Your task to perform on an android device: What's the weather going to be this weekend? Image 0: 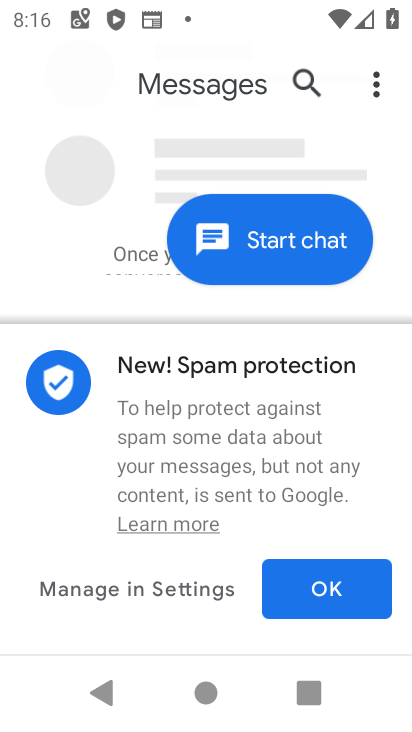
Step 0: press home button
Your task to perform on an android device: What's the weather going to be this weekend? Image 1: 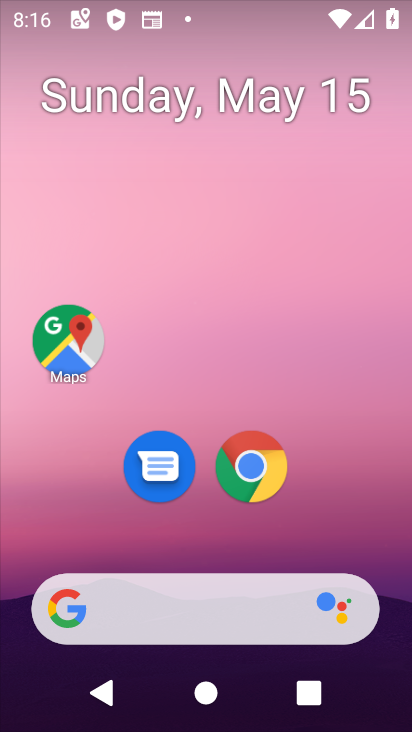
Step 1: click (219, 618)
Your task to perform on an android device: What's the weather going to be this weekend? Image 2: 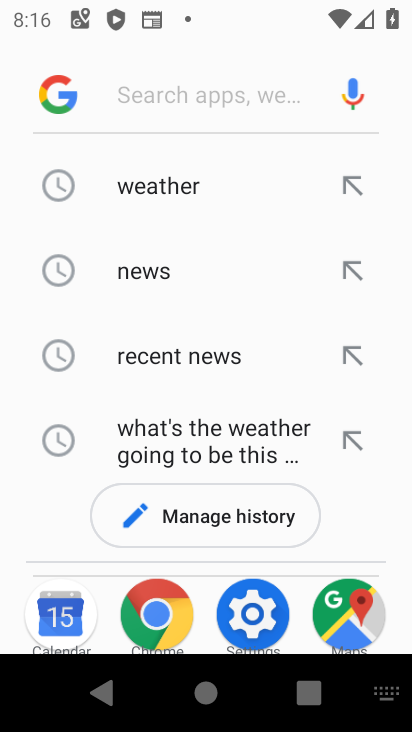
Step 2: click (156, 176)
Your task to perform on an android device: What's the weather going to be this weekend? Image 3: 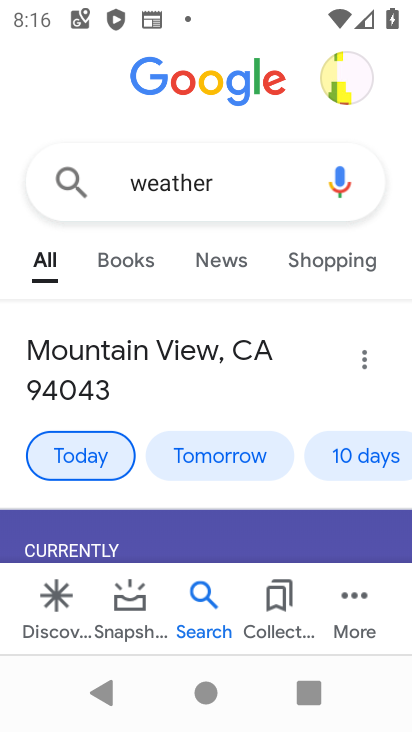
Step 3: drag from (265, 481) to (224, 105)
Your task to perform on an android device: What's the weather going to be this weekend? Image 4: 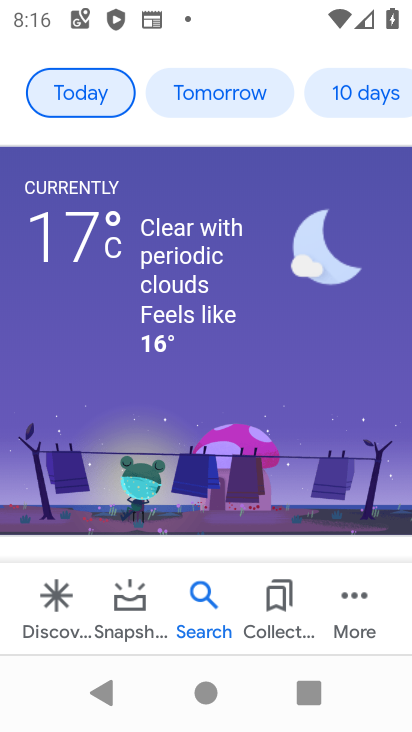
Step 4: click (353, 97)
Your task to perform on an android device: What's the weather going to be this weekend? Image 5: 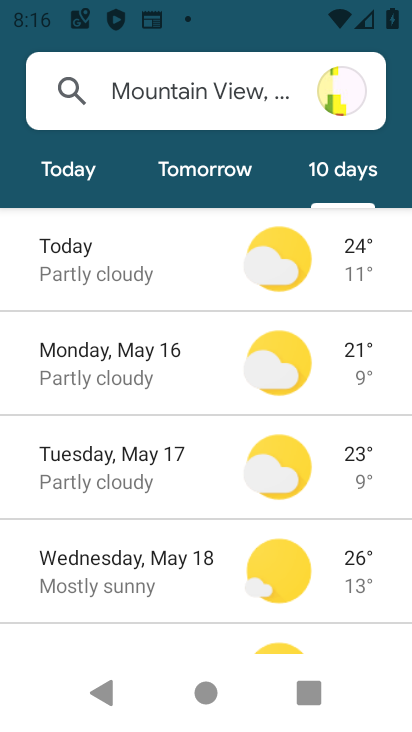
Step 5: task complete